Your task to perform on an android device: turn pop-ups on in chrome Image 0: 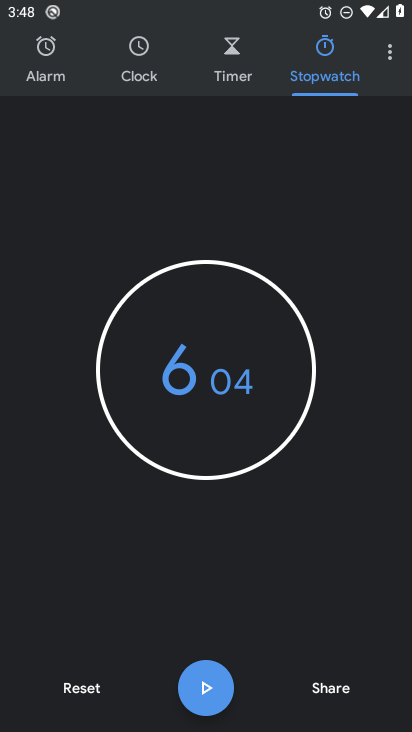
Step 0: press home button
Your task to perform on an android device: turn pop-ups on in chrome Image 1: 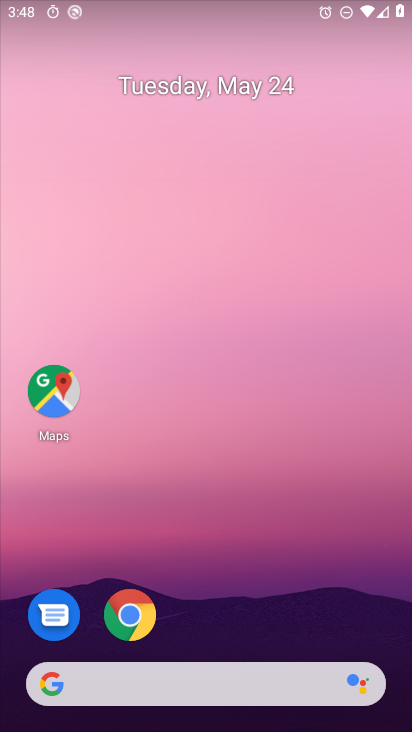
Step 1: click (128, 623)
Your task to perform on an android device: turn pop-ups on in chrome Image 2: 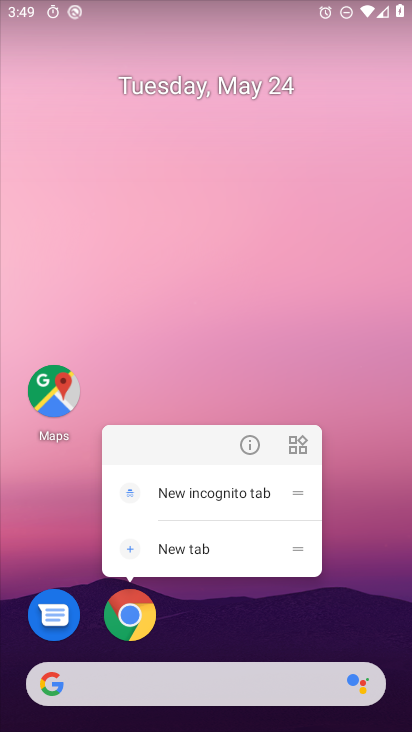
Step 2: click (127, 622)
Your task to perform on an android device: turn pop-ups on in chrome Image 3: 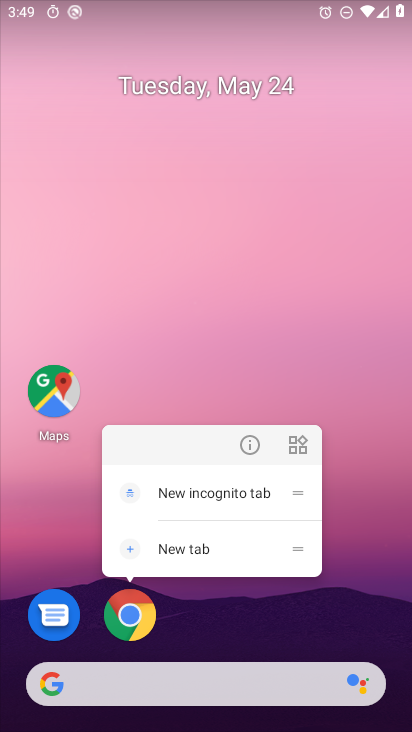
Step 3: click (127, 622)
Your task to perform on an android device: turn pop-ups on in chrome Image 4: 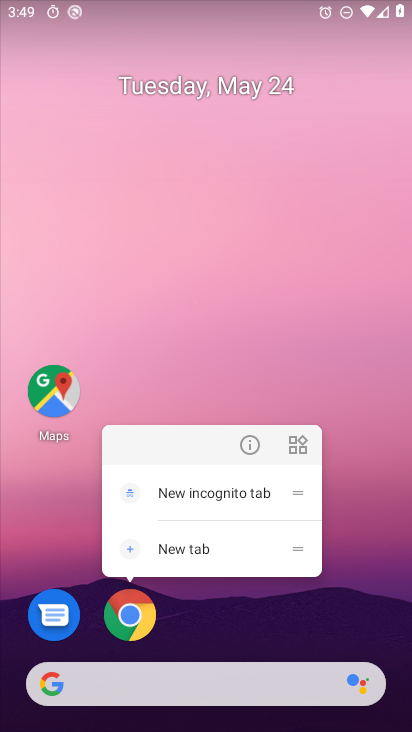
Step 4: click (142, 614)
Your task to perform on an android device: turn pop-ups on in chrome Image 5: 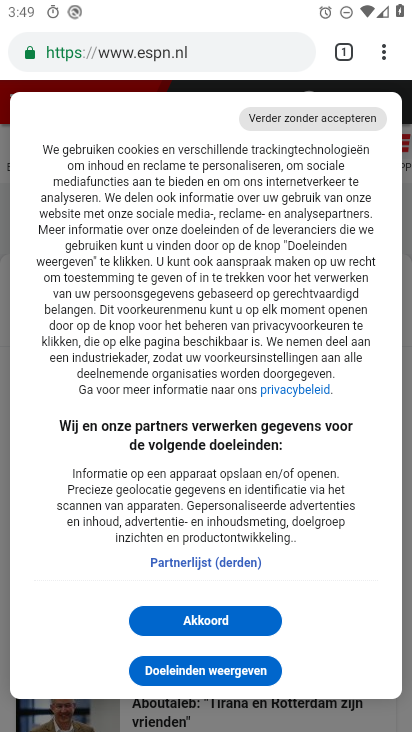
Step 5: click (379, 46)
Your task to perform on an android device: turn pop-ups on in chrome Image 6: 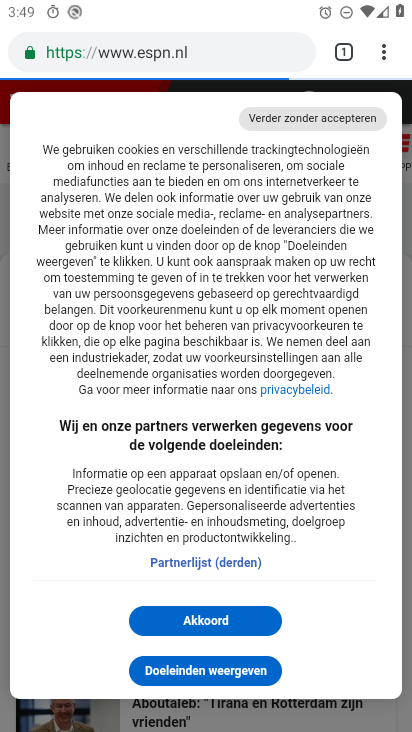
Step 6: click (379, 46)
Your task to perform on an android device: turn pop-ups on in chrome Image 7: 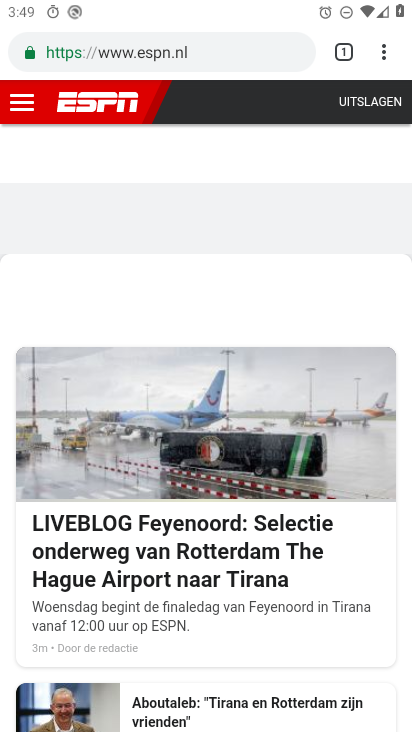
Step 7: click (384, 53)
Your task to perform on an android device: turn pop-ups on in chrome Image 8: 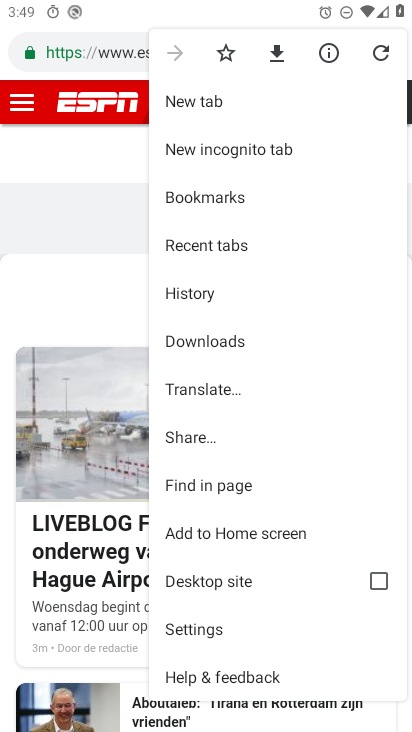
Step 8: click (207, 633)
Your task to perform on an android device: turn pop-ups on in chrome Image 9: 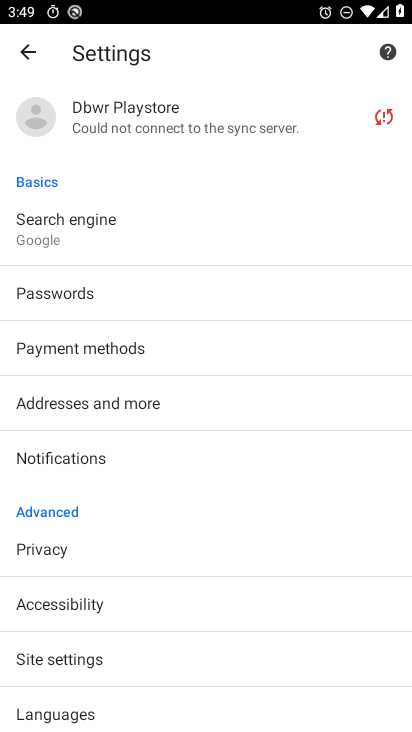
Step 9: click (60, 657)
Your task to perform on an android device: turn pop-ups on in chrome Image 10: 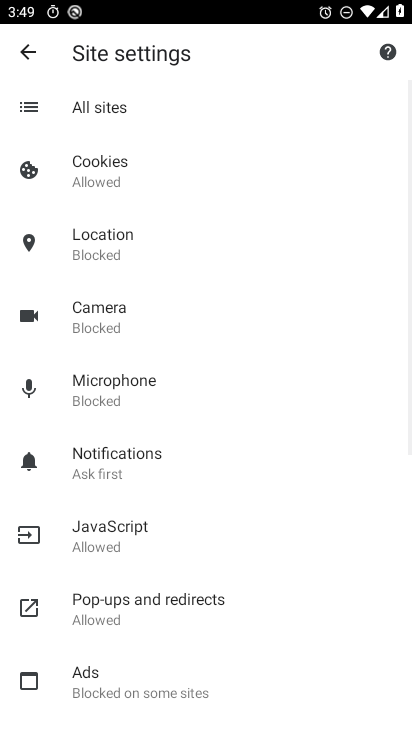
Step 10: click (199, 618)
Your task to perform on an android device: turn pop-ups on in chrome Image 11: 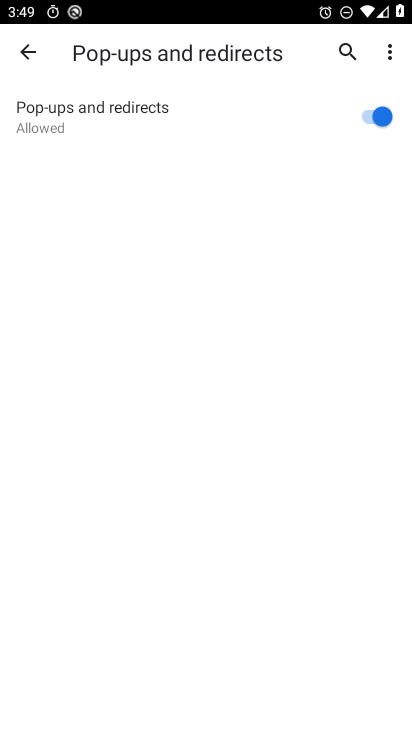
Step 11: task complete